Your task to perform on an android device: Open accessibility settings Image 0: 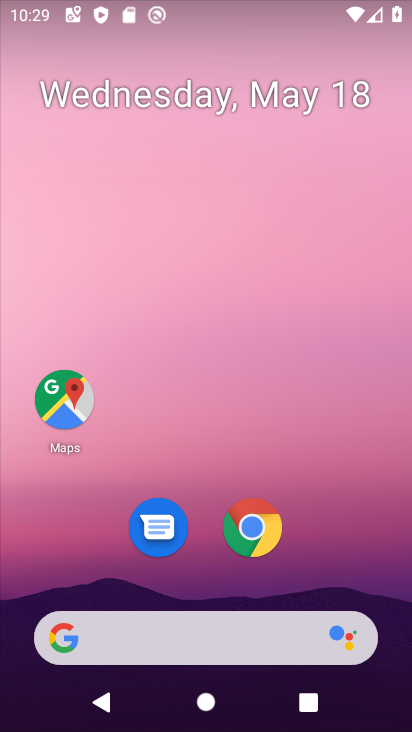
Step 0: drag from (339, 577) to (294, 83)
Your task to perform on an android device: Open accessibility settings Image 1: 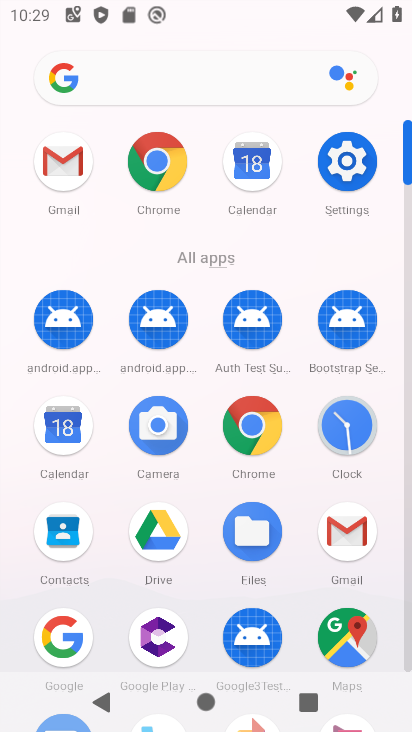
Step 1: click (353, 178)
Your task to perform on an android device: Open accessibility settings Image 2: 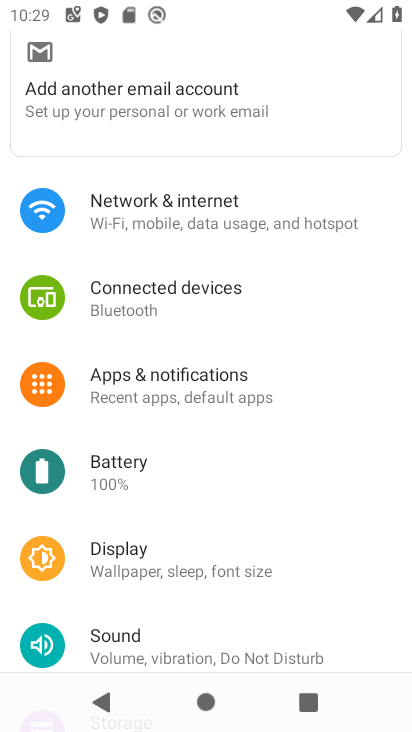
Step 2: drag from (179, 570) to (194, 209)
Your task to perform on an android device: Open accessibility settings Image 3: 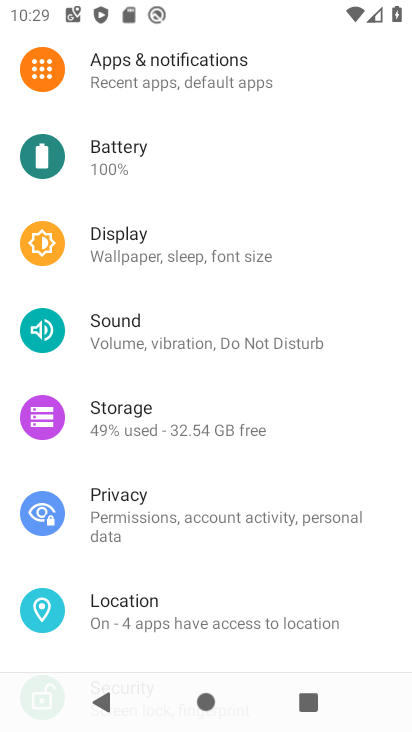
Step 3: drag from (129, 588) to (172, 368)
Your task to perform on an android device: Open accessibility settings Image 4: 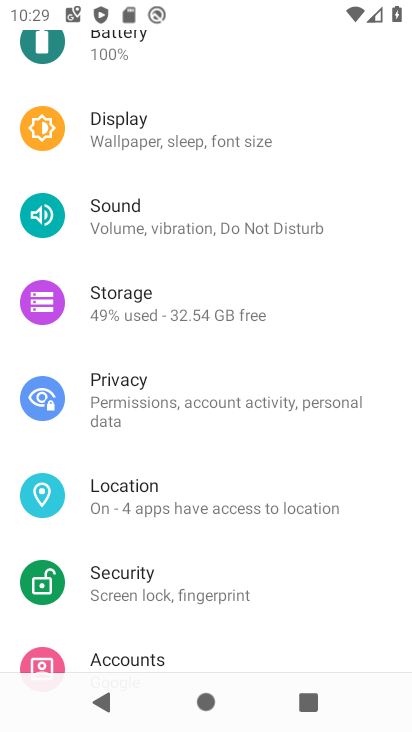
Step 4: drag from (139, 645) to (178, 415)
Your task to perform on an android device: Open accessibility settings Image 5: 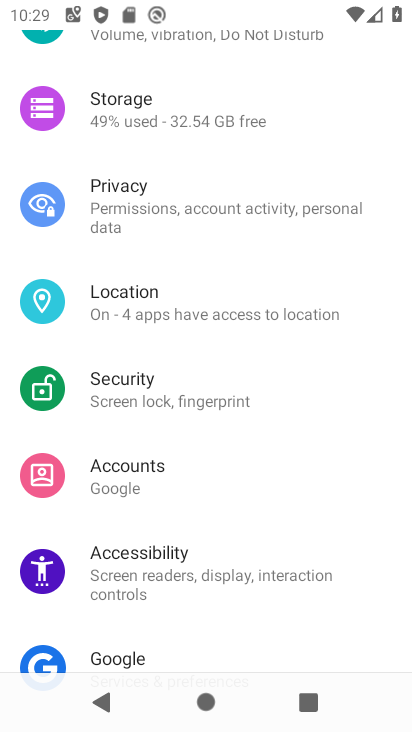
Step 5: click (154, 585)
Your task to perform on an android device: Open accessibility settings Image 6: 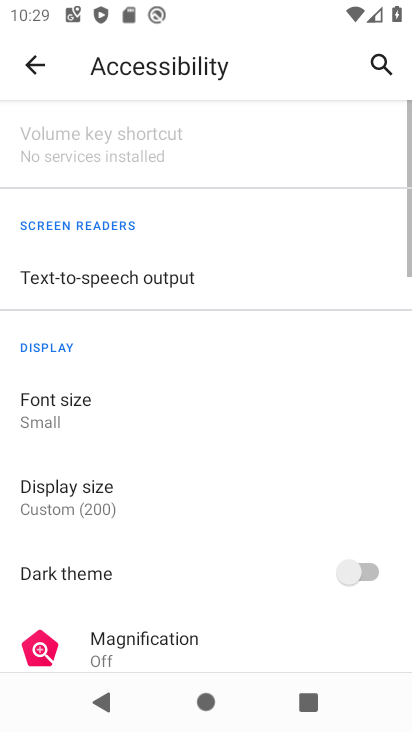
Step 6: task complete